Your task to perform on an android device: find photos in the google photos app Image 0: 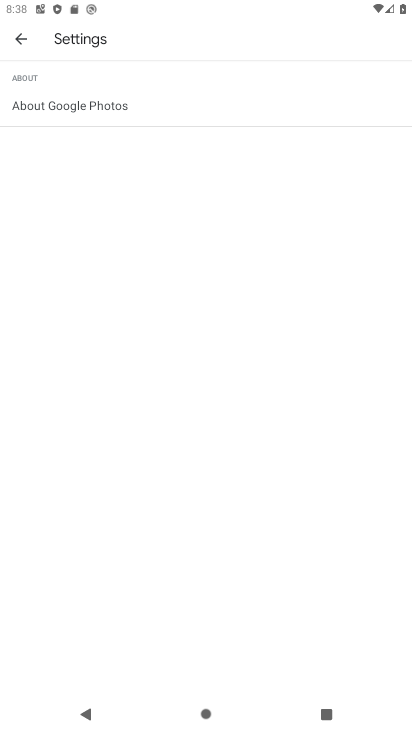
Step 0: press home button
Your task to perform on an android device: find photos in the google photos app Image 1: 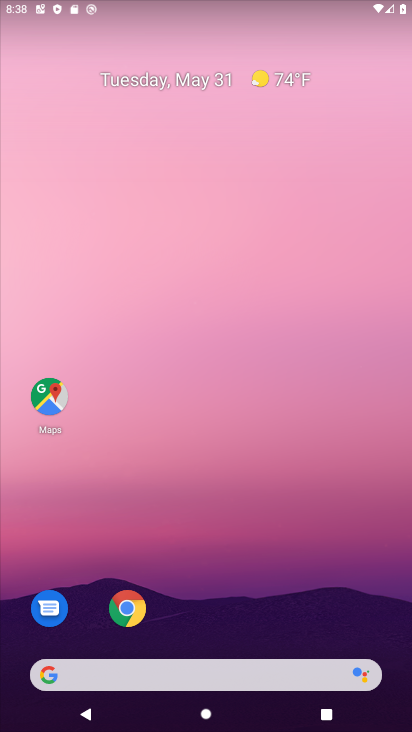
Step 1: drag from (269, 653) to (148, 187)
Your task to perform on an android device: find photos in the google photos app Image 2: 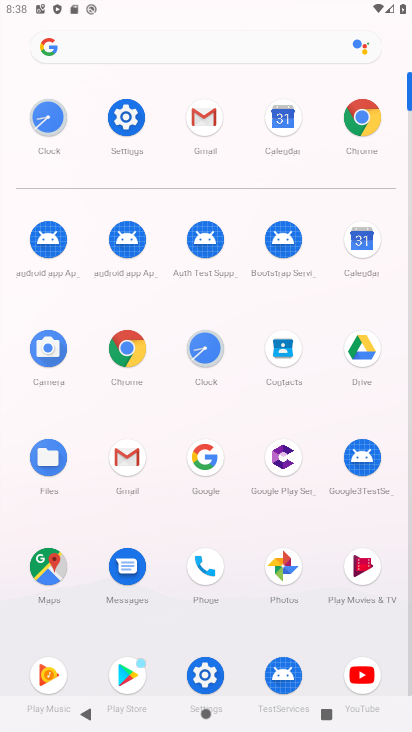
Step 2: click (286, 565)
Your task to perform on an android device: find photos in the google photos app Image 3: 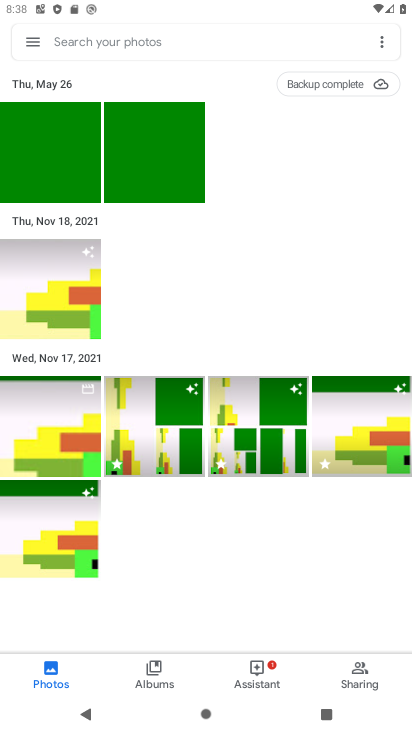
Step 3: task complete